Your task to perform on an android device: delete location history Image 0: 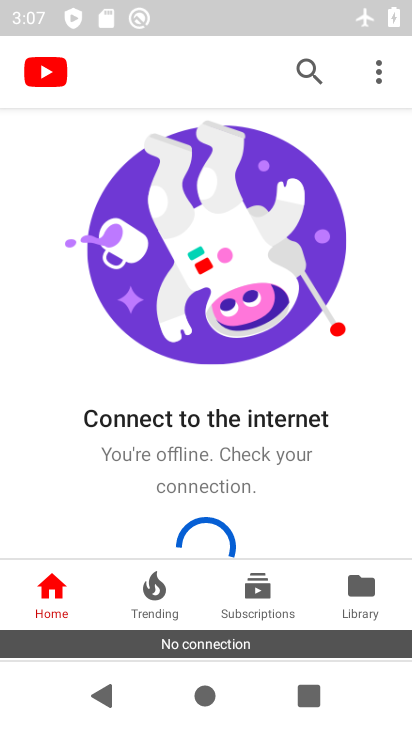
Step 0: press back button
Your task to perform on an android device: delete location history Image 1: 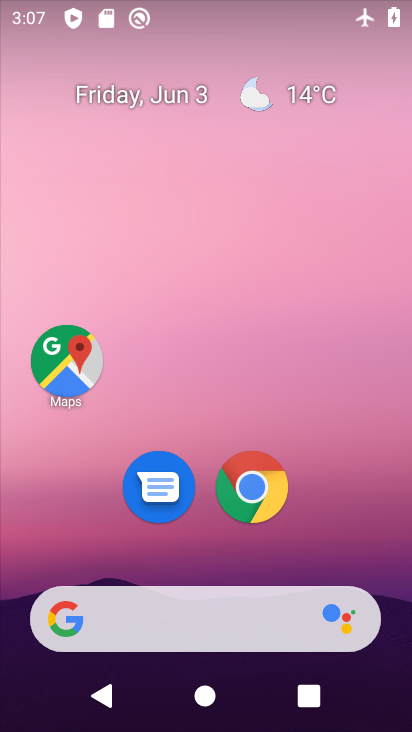
Step 1: click (56, 352)
Your task to perform on an android device: delete location history Image 2: 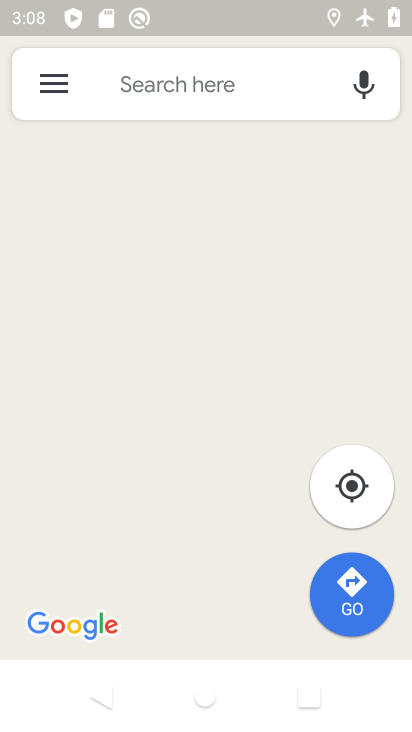
Step 2: click (54, 89)
Your task to perform on an android device: delete location history Image 3: 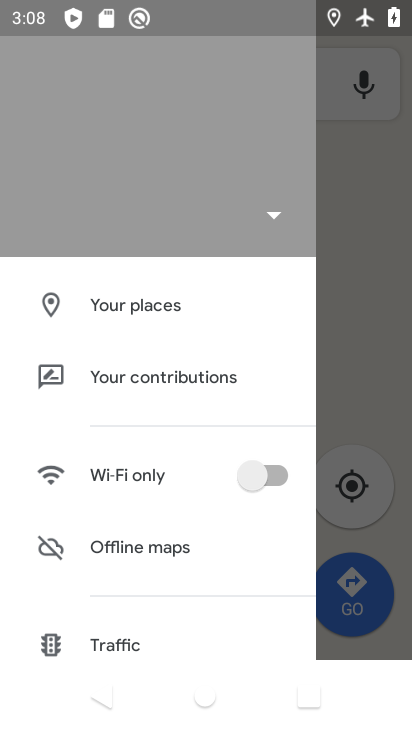
Step 3: task complete